Your task to perform on an android device: delete the emails in spam in the gmail app Image 0: 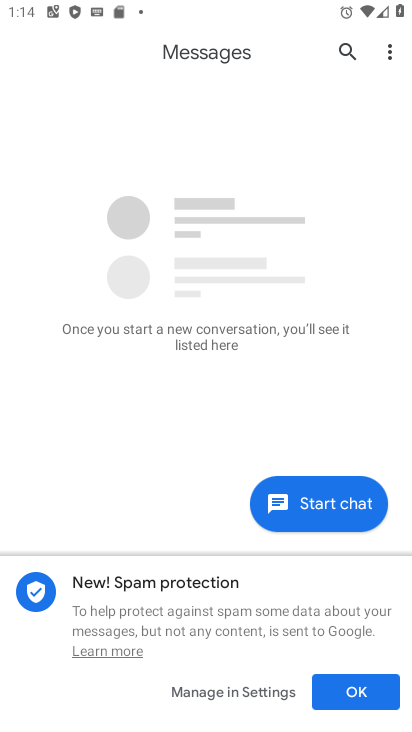
Step 0: press home button
Your task to perform on an android device: delete the emails in spam in the gmail app Image 1: 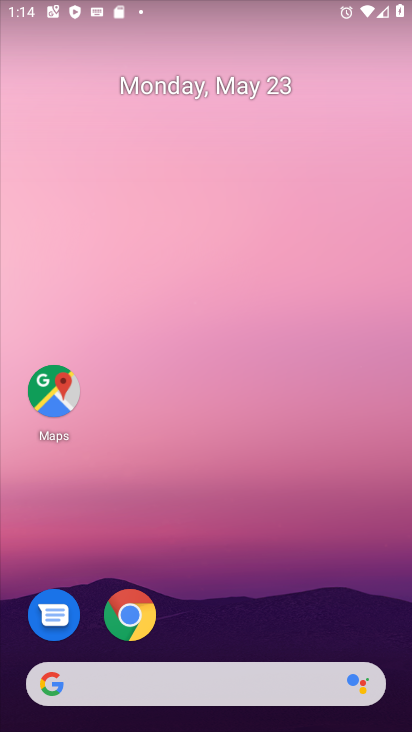
Step 1: drag from (214, 728) to (178, 98)
Your task to perform on an android device: delete the emails in spam in the gmail app Image 2: 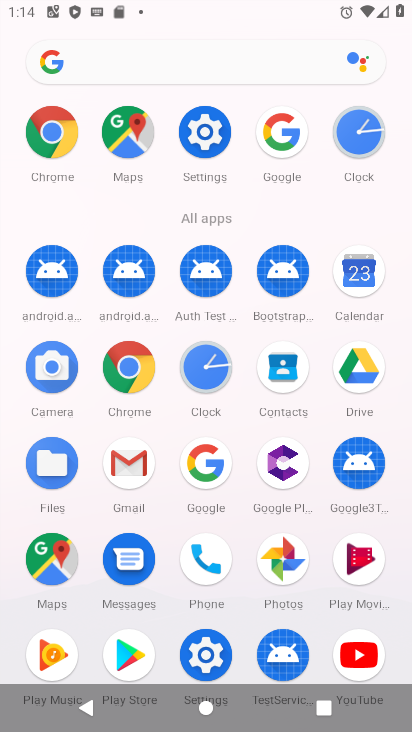
Step 2: click (131, 458)
Your task to perform on an android device: delete the emails in spam in the gmail app Image 3: 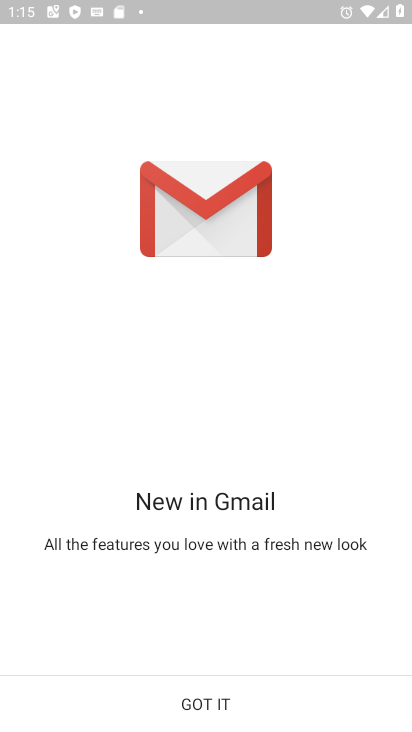
Step 3: click (202, 696)
Your task to perform on an android device: delete the emails in spam in the gmail app Image 4: 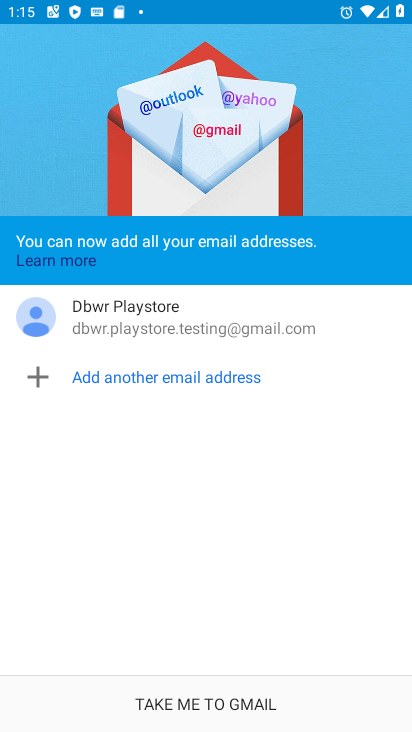
Step 4: click (206, 697)
Your task to perform on an android device: delete the emails in spam in the gmail app Image 5: 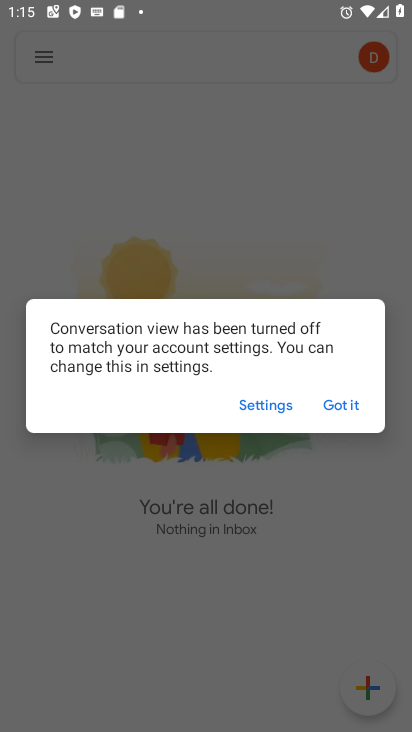
Step 5: click (344, 408)
Your task to perform on an android device: delete the emails in spam in the gmail app Image 6: 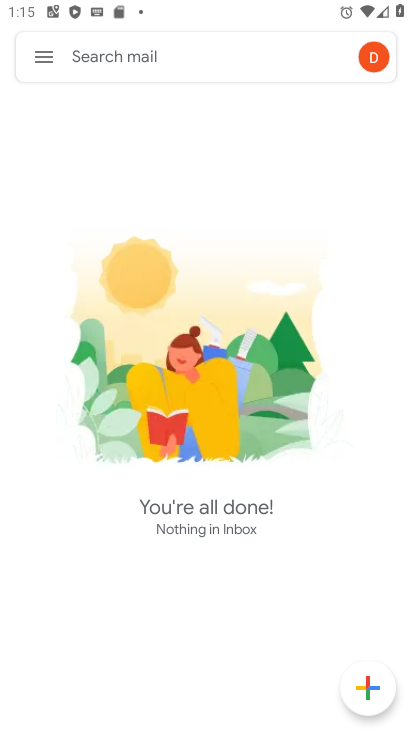
Step 6: task complete